Your task to perform on an android device: create a new album in the google photos Image 0: 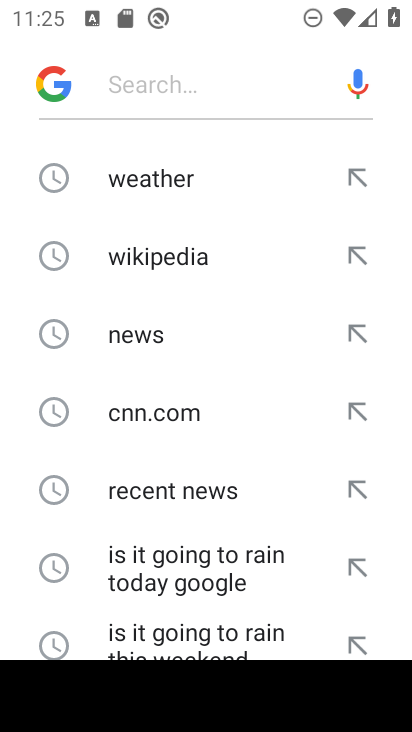
Step 0: press home button
Your task to perform on an android device: create a new album in the google photos Image 1: 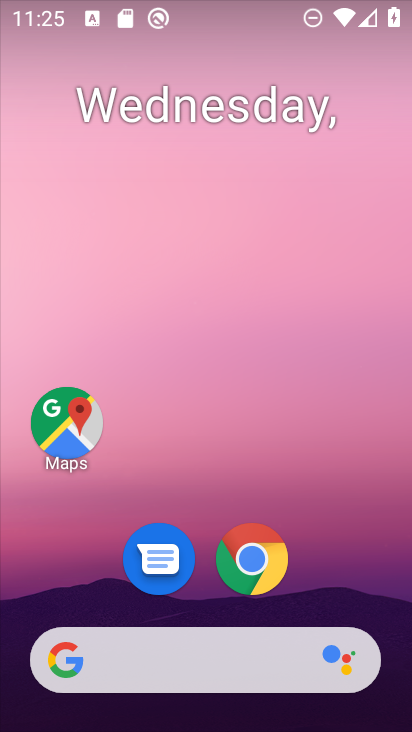
Step 1: drag from (167, 597) to (364, 204)
Your task to perform on an android device: create a new album in the google photos Image 2: 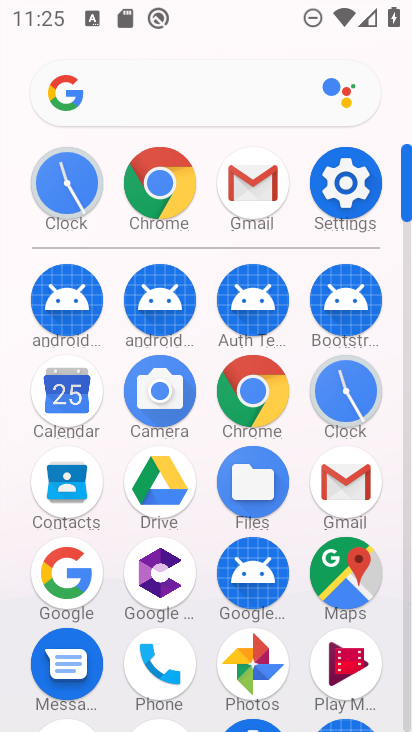
Step 2: drag from (251, 552) to (309, 299)
Your task to perform on an android device: create a new album in the google photos Image 3: 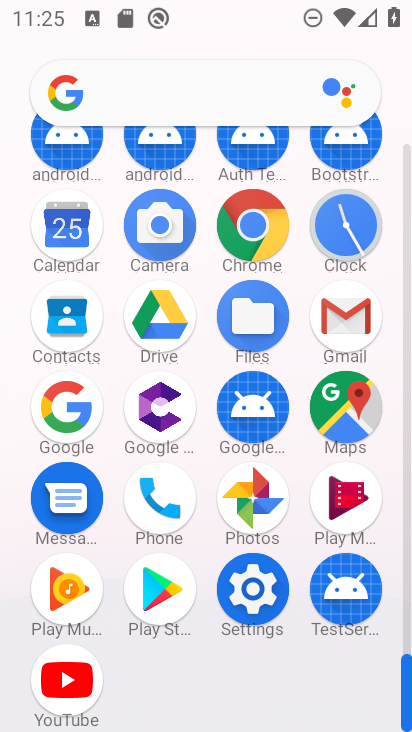
Step 3: click (269, 484)
Your task to perform on an android device: create a new album in the google photos Image 4: 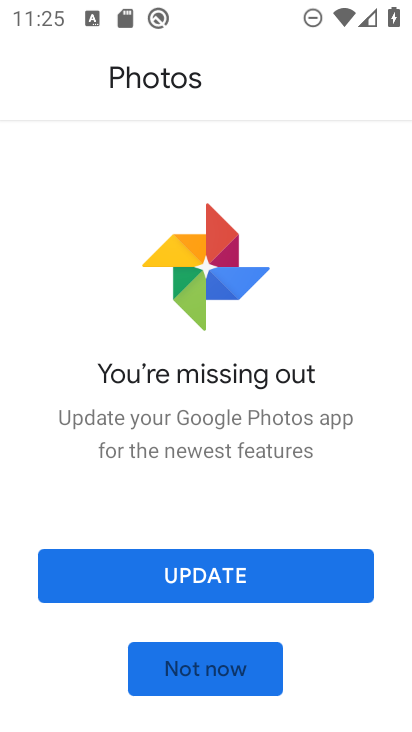
Step 4: click (249, 672)
Your task to perform on an android device: create a new album in the google photos Image 5: 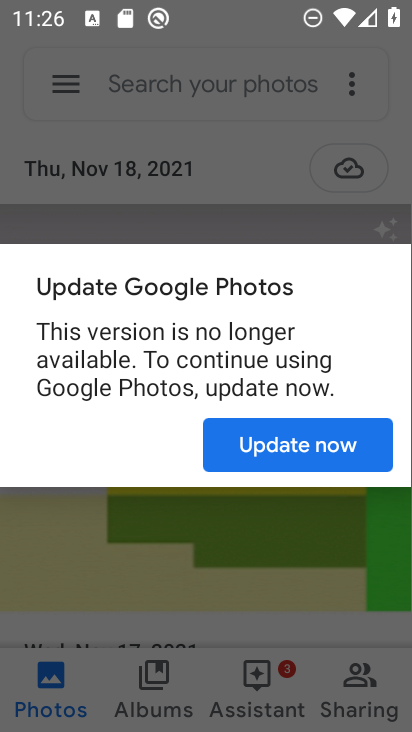
Step 5: task complete